Your task to perform on an android device: toggle improve location accuracy Image 0: 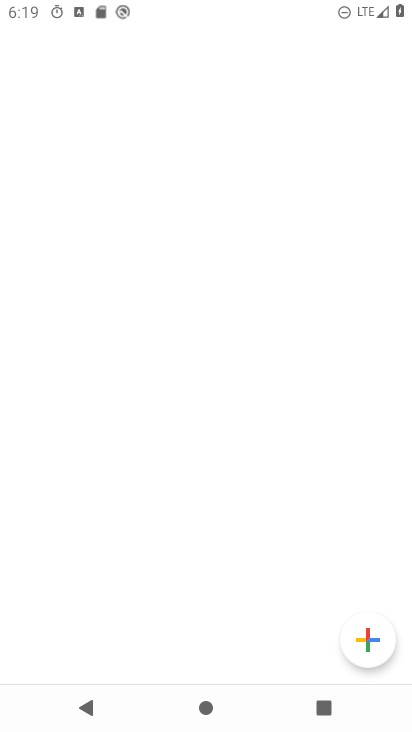
Step 0: drag from (336, 659) to (394, 19)
Your task to perform on an android device: toggle improve location accuracy Image 1: 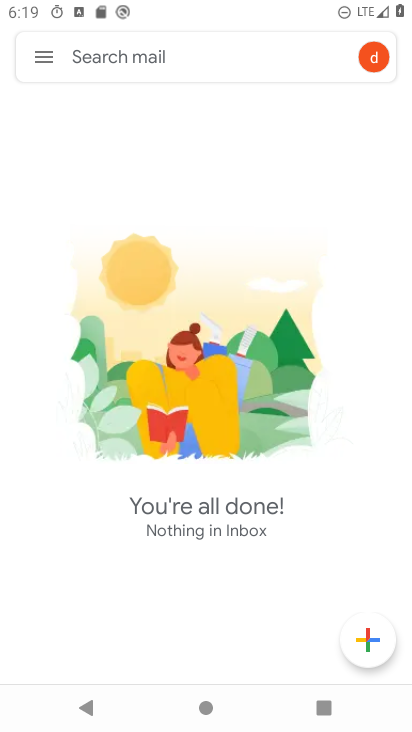
Step 1: press home button
Your task to perform on an android device: toggle improve location accuracy Image 2: 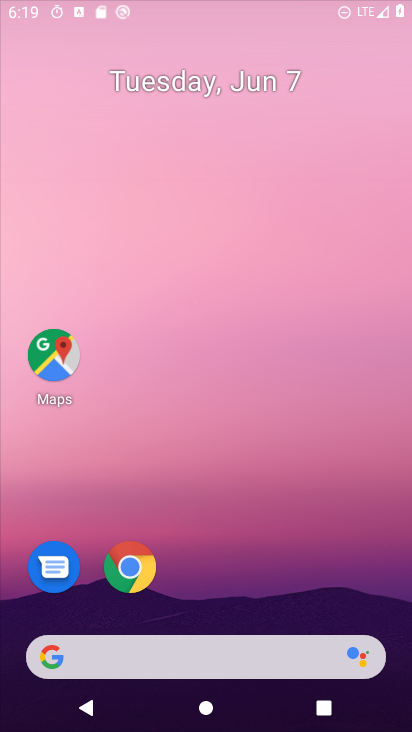
Step 2: drag from (179, 610) to (198, 69)
Your task to perform on an android device: toggle improve location accuracy Image 3: 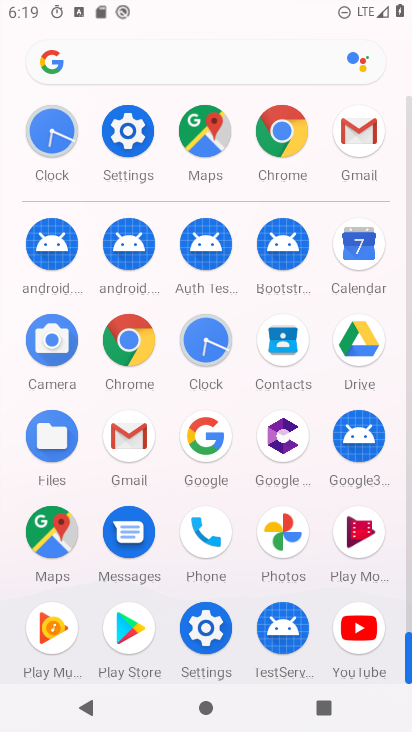
Step 3: click (134, 149)
Your task to perform on an android device: toggle improve location accuracy Image 4: 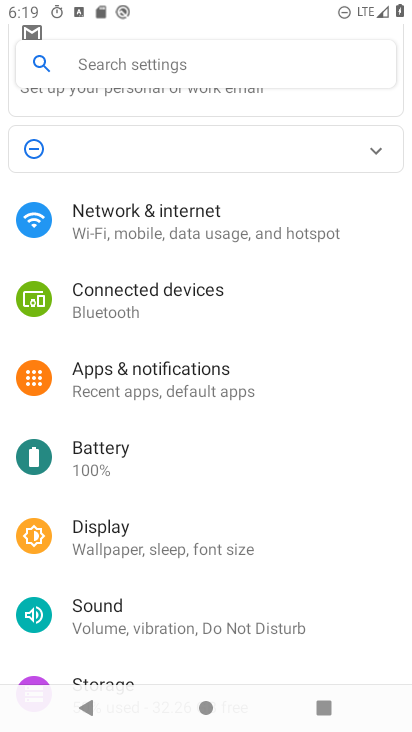
Step 4: drag from (222, 615) to (247, 157)
Your task to perform on an android device: toggle improve location accuracy Image 5: 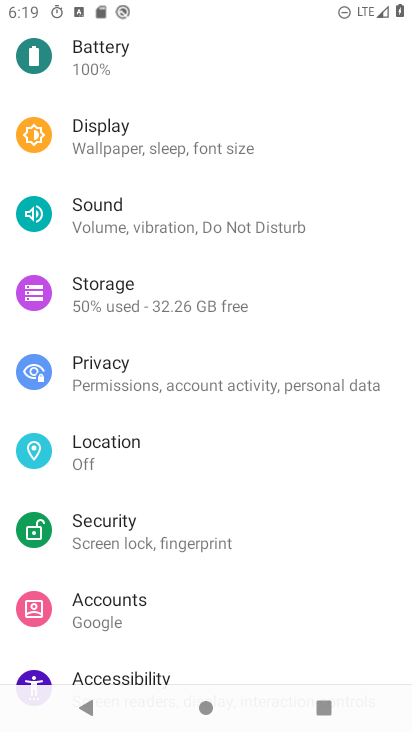
Step 5: click (162, 454)
Your task to perform on an android device: toggle improve location accuracy Image 6: 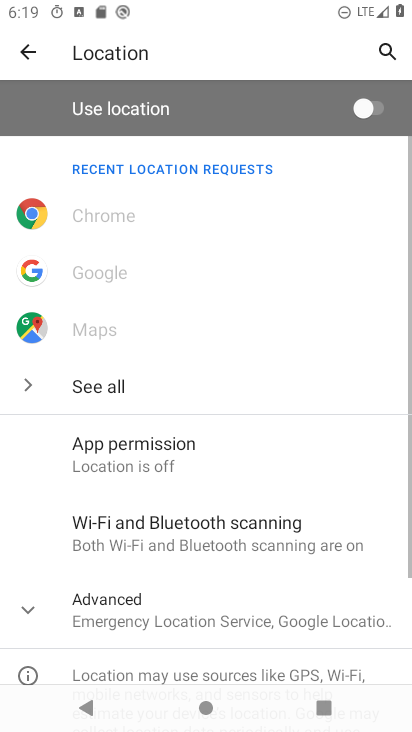
Step 6: drag from (186, 572) to (241, 308)
Your task to perform on an android device: toggle improve location accuracy Image 7: 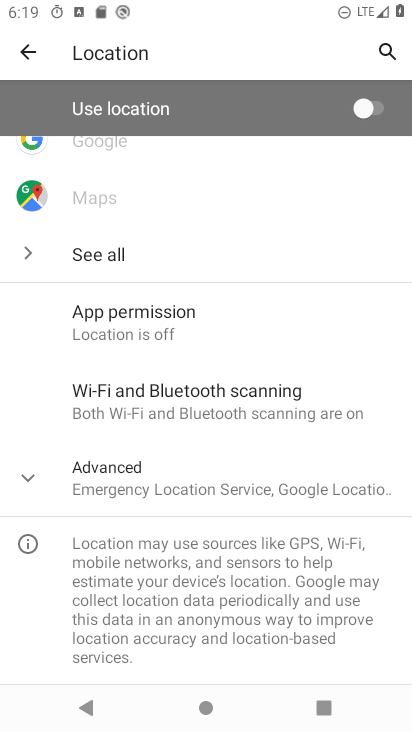
Step 7: click (232, 485)
Your task to perform on an android device: toggle improve location accuracy Image 8: 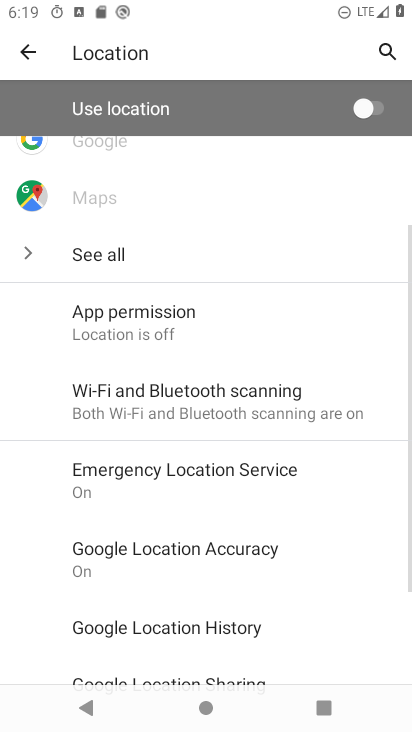
Step 8: click (253, 560)
Your task to perform on an android device: toggle improve location accuracy Image 9: 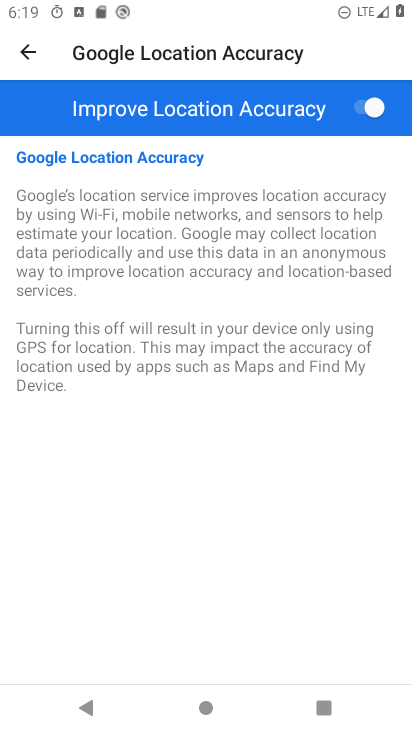
Step 9: click (349, 115)
Your task to perform on an android device: toggle improve location accuracy Image 10: 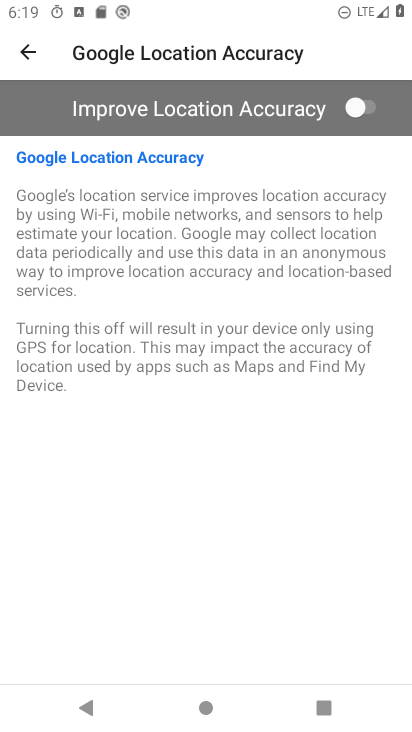
Step 10: task complete